Your task to perform on an android device: Open calendar and show me the fourth week of next month Image 0: 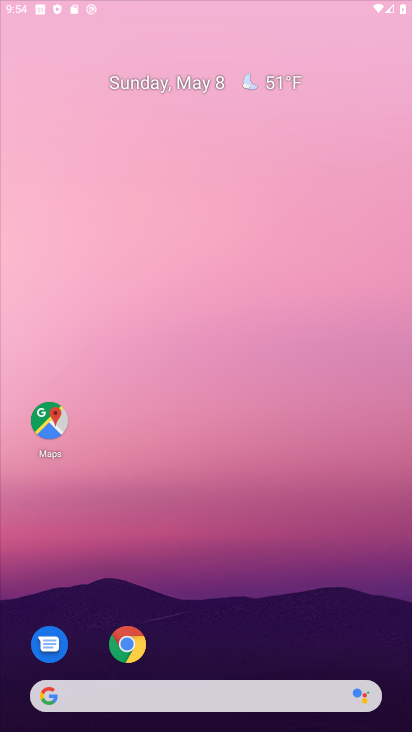
Step 0: click (229, 172)
Your task to perform on an android device: Open calendar and show me the fourth week of next month Image 1: 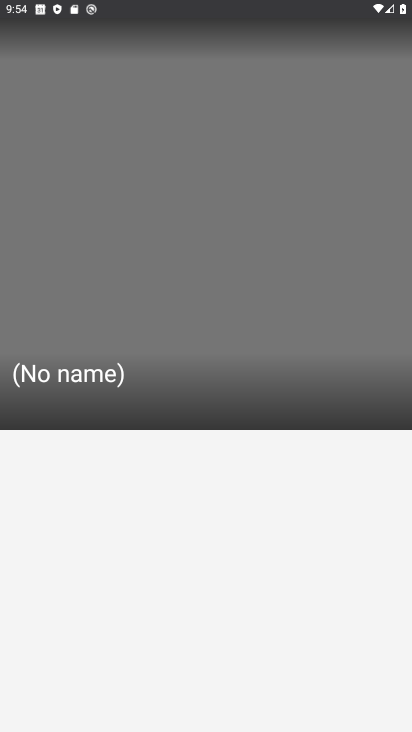
Step 1: drag from (185, 494) to (233, 79)
Your task to perform on an android device: Open calendar and show me the fourth week of next month Image 2: 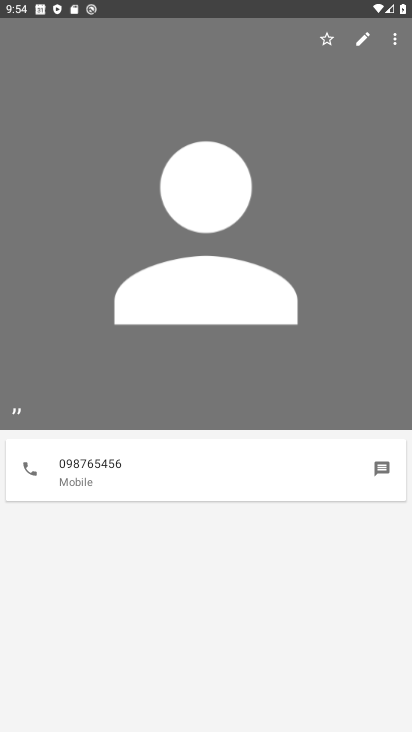
Step 2: press home button
Your task to perform on an android device: Open calendar and show me the fourth week of next month Image 3: 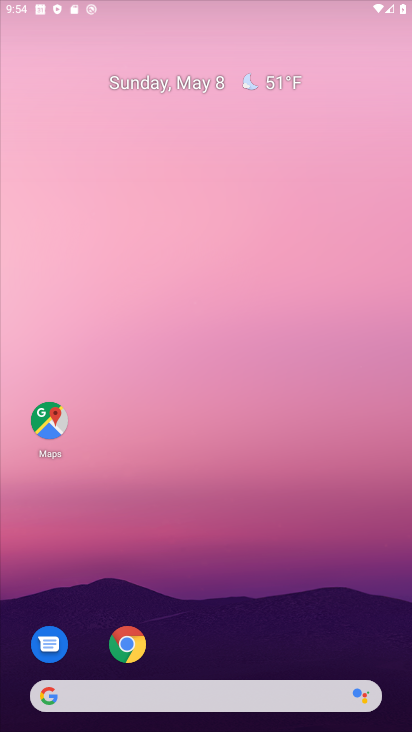
Step 3: drag from (194, 666) to (324, 108)
Your task to perform on an android device: Open calendar and show me the fourth week of next month Image 4: 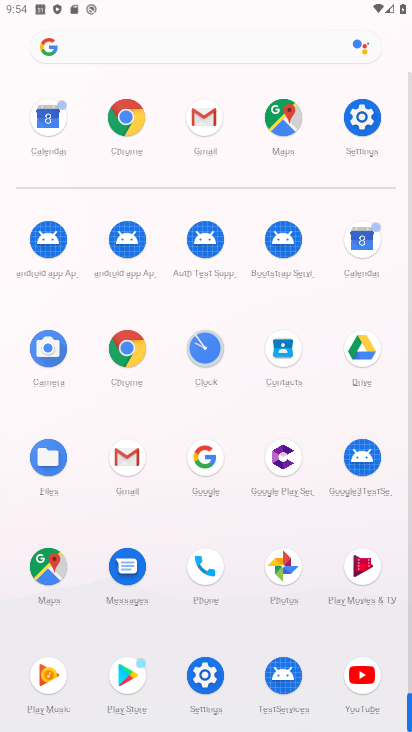
Step 4: click (330, 235)
Your task to perform on an android device: Open calendar and show me the fourth week of next month Image 5: 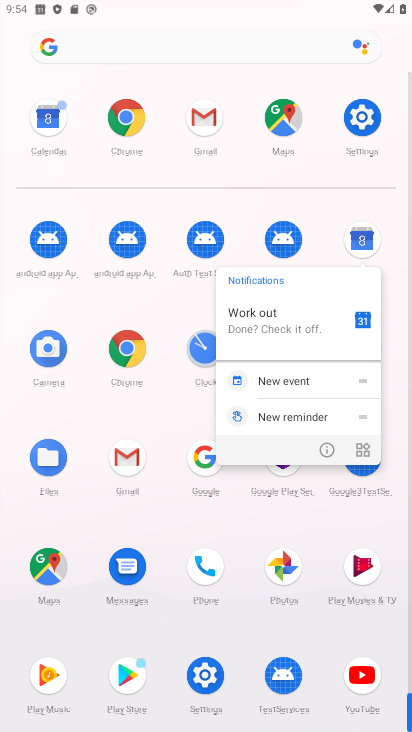
Step 5: click (318, 453)
Your task to perform on an android device: Open calendar and show me the fourth week of next month Image 6: 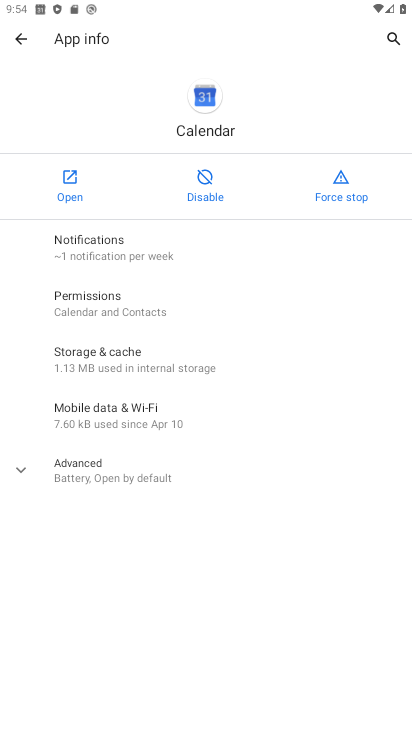
Step 6: click (50, 185)
Your task to perform on an android device: Open calendar and show me the fourth week of next month Image 7: 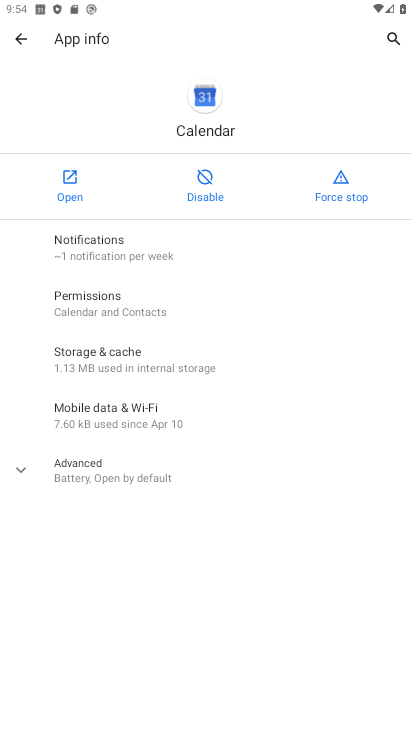
Step 7: click (50, 185)
Your task to perform on an android device: Open calendar and show me the fourth week of next month Image 8: 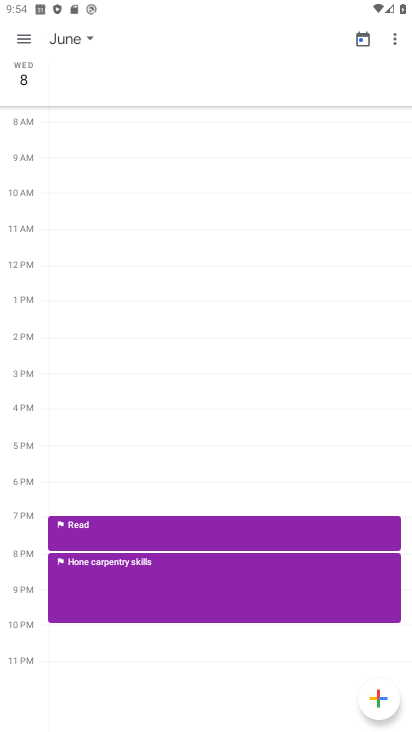
Step 8: drag from (160, 517) to (189, 245)
Your task to perform on an android device: Open calendar and show me the fourth week of next month Image 9: 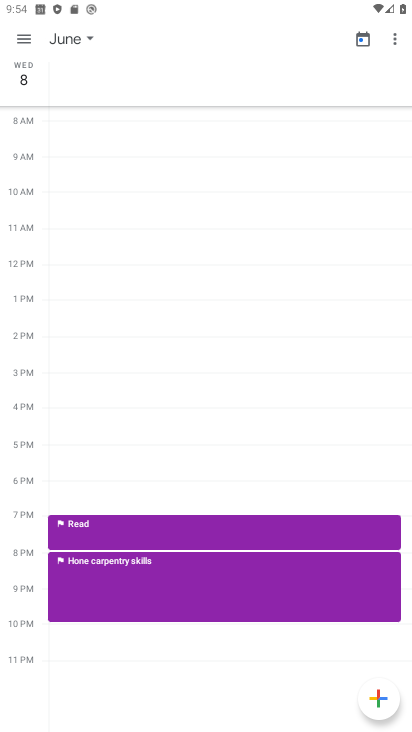
Step 9: drag from (190, 214) to (239, 539)
Your task to perform on an android device: Open calendar and show me the fourth week of next month Image 10: 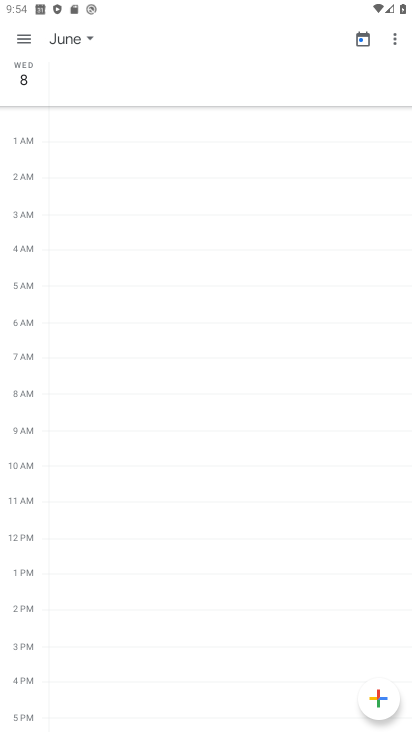
Step 10: drag from (195, 617) to (188, 319)
Your task to perform on an android device: Open calendar and show me the fourth week of next month Image 11: 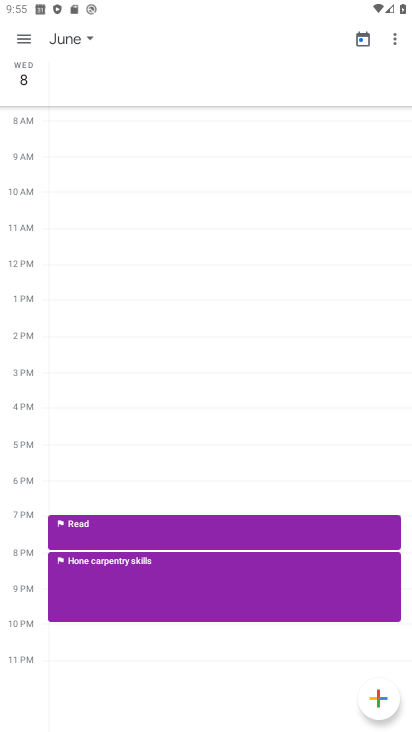
Step 11: drag from (228, 635) to (196, 209)
Your task to perform on an android device: Open calendar and show me the fourth week of next month Image 12: 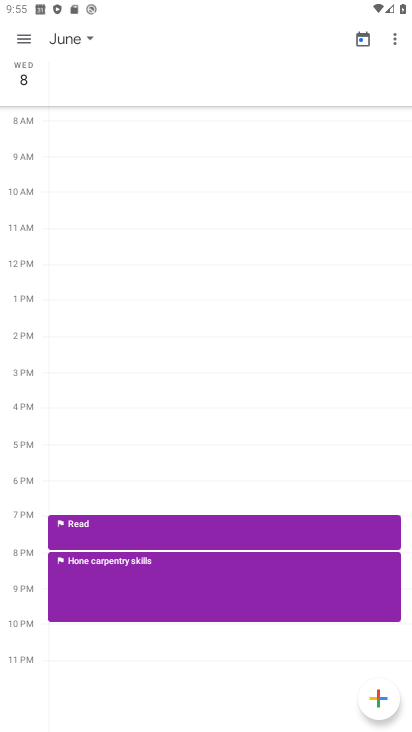
Step 12: click (90, 41)
Your task to perform on an android device: Open calendar and show me the fourth week of next month Image 13: 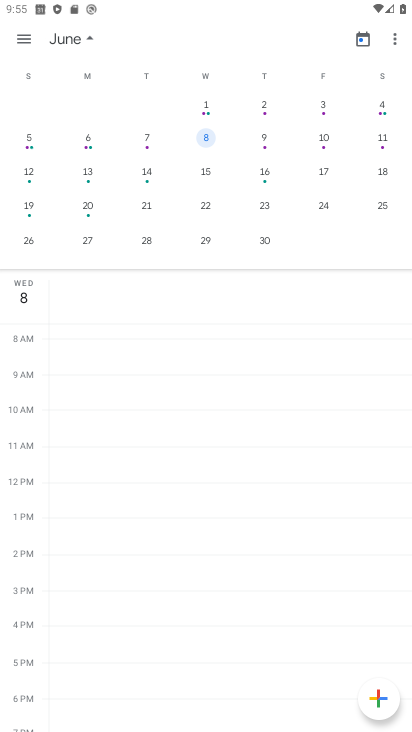
Step 13: click (105, 202)
Your task to perform on an android device: Open calendar and show me the fourth week of next month Image 14: 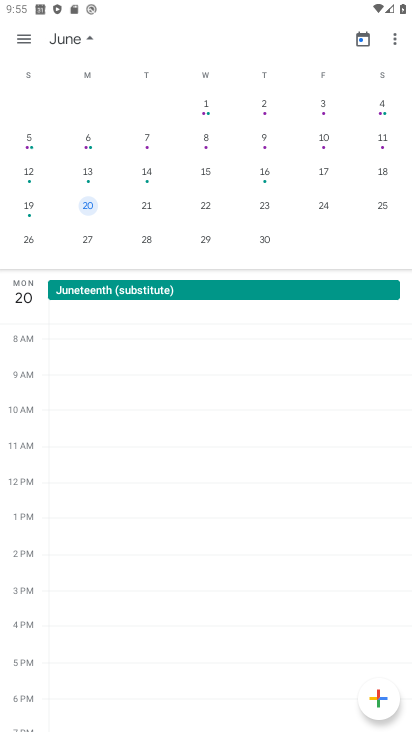
Step 14: task complete